Your task to perform on an android device: toggle data saver in the chrome app Image 0: 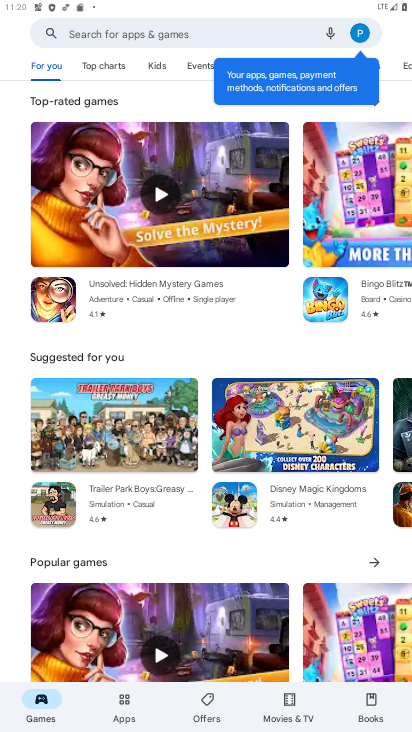
Step 0: press home button
Your task to perform on an android device: toggle data saver in the chrome app Image 1: 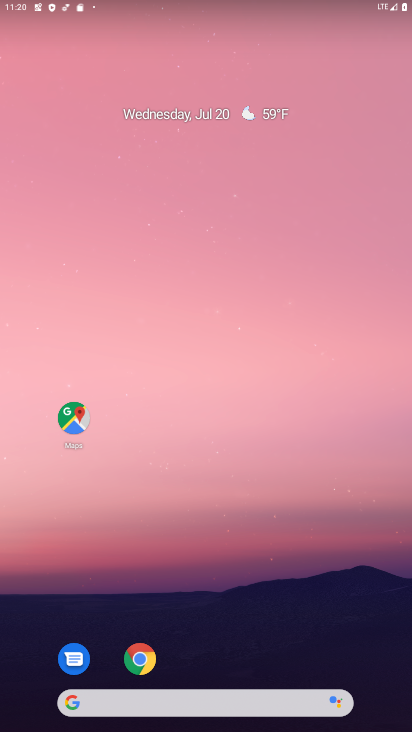
Step 1: drag from (234, 715) to (231, 164)
Your task to perform on an android device: toggle data saver in the chrome app Image 2: 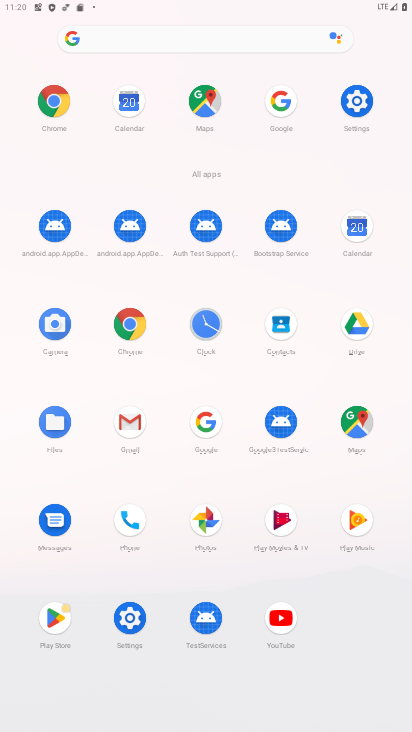
Step 2: click (130, 316)
Your task to perform on an android device: toggle data saver in the chrome app Image 3: 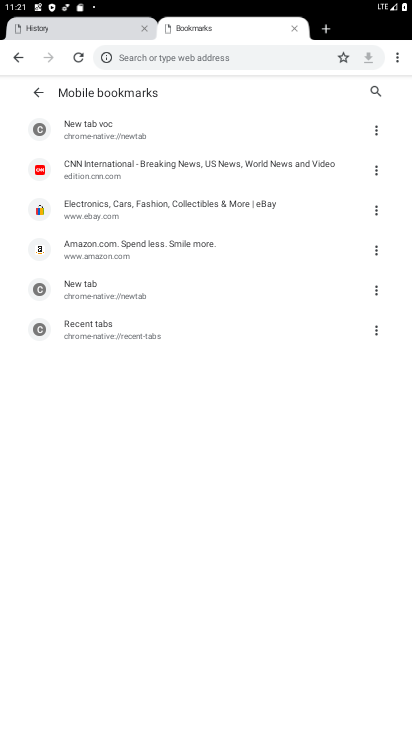
Step 3: click (398, 61)
Your task to perform on an android device: toggle data saver in the chrome app Image 4: 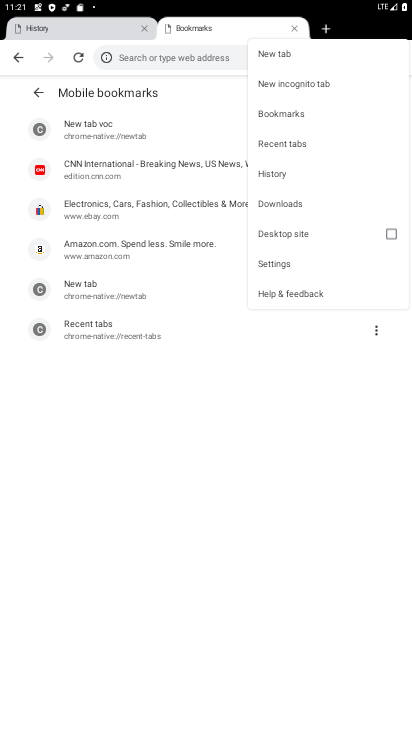
Step 4: click (279, 262)
Your task to perform on an android device: toggle data saver in the chrome app Image 5: 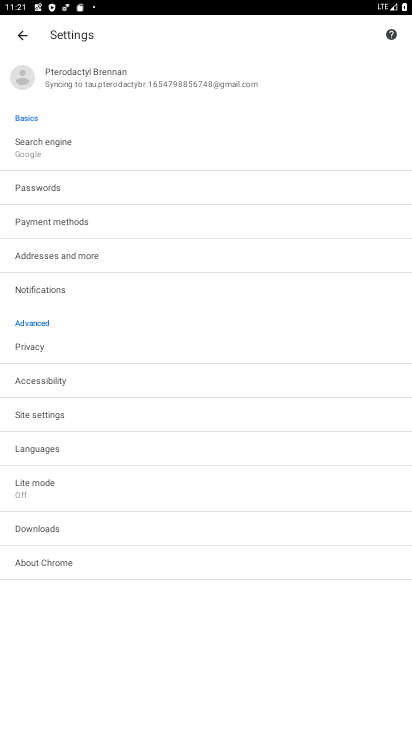
Step 5: click (25, 476)
Your task to perform on an android device: toggle data saver in the chrome app Image 6: 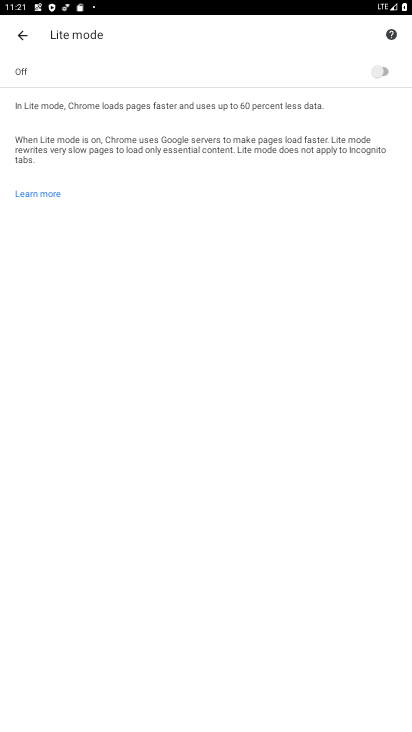
Step 6: click (384, 72)
Your task to perform on an android device: toggle data saver in the chrome app Image 7: 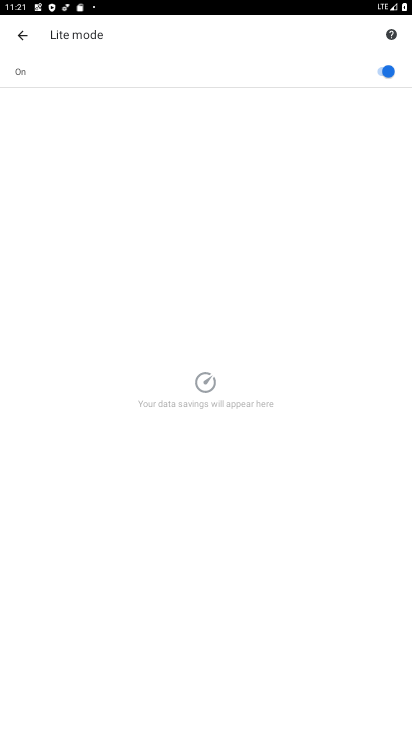
Step 7: task complete